Your task to perform on an android device: make emails show in primary in the gmail app Image 0: 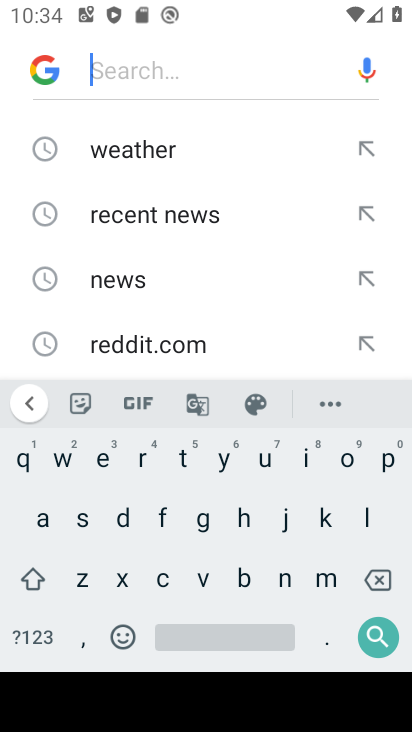
Step 0: press home button
Your task to perform on an android device: make emails show in primary in the gmail app Image 1: 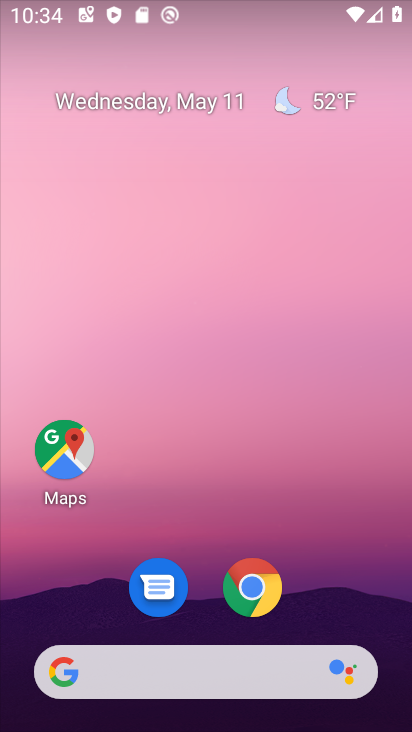
Step 1: drag from (305, 699) to (178, 249)
Your task to perform on an android device: make emails show in primary in the gmail app Image 2: 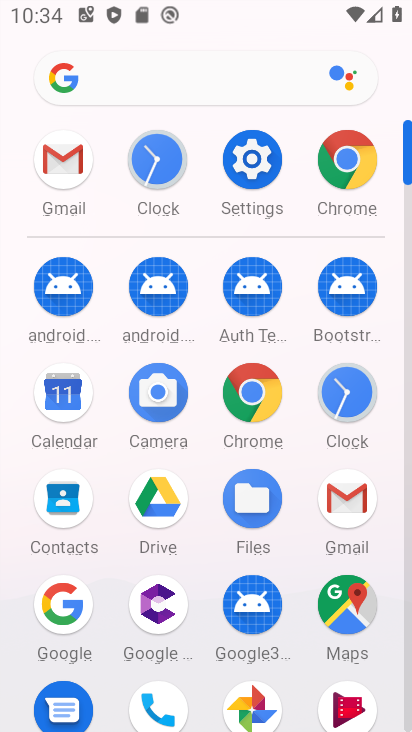
Step 2: click (337, 513)
Your task to perform on an android device: make emails show in primary in the gmail app Image 3: 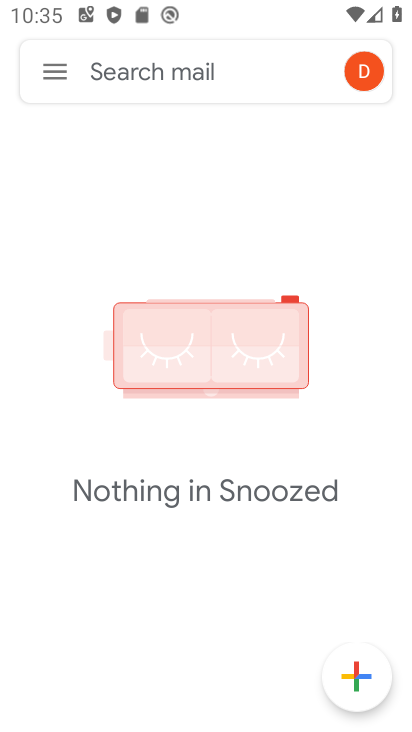
Step 3: click (56, 85)
Your task to perform on an android device: make emails show in primary in the gmail app Image 4: 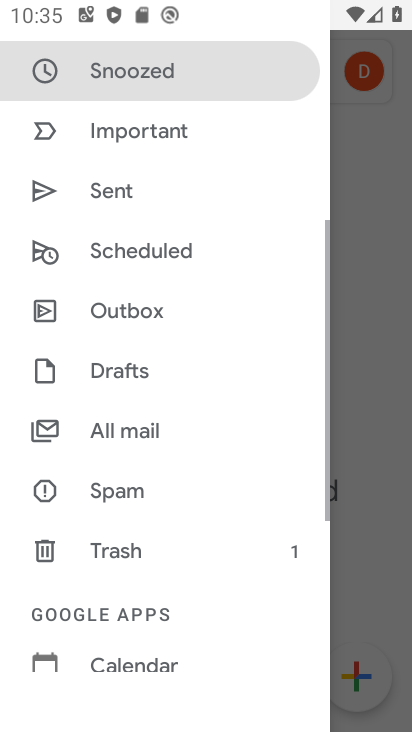
Step 4: drag from (152, 577) to (208, 323)
Your task to perform on an android device: make emails show in primary in the gmail app Image 5: 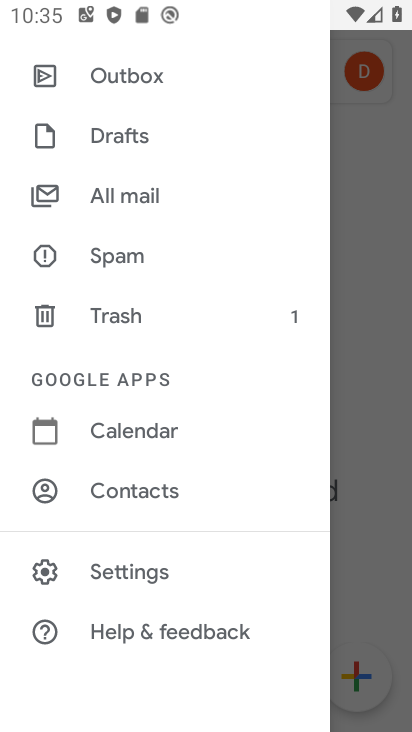
Step 5: click (134, 577)
Your task to perform on an android device: make emails show in primary in the gmail app Image 6: 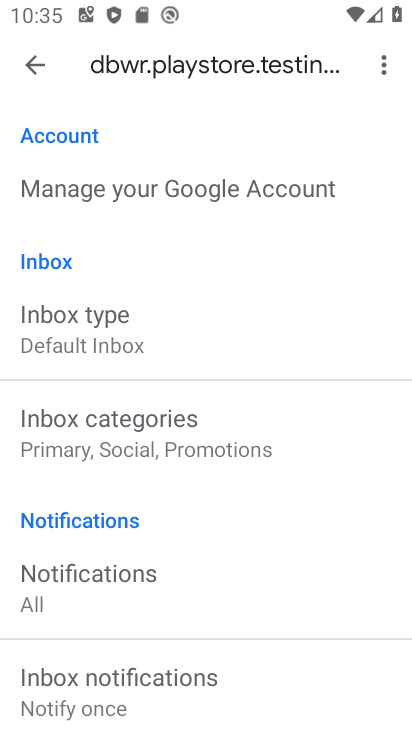
Step 6: click (148, 439)
Your task to perform on an android device: make emails show in primary in the gmail app Image 7: 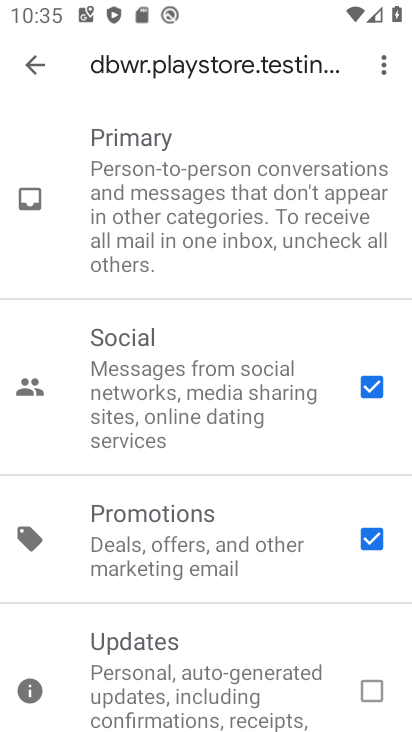
Step 7: click (373, 520)
Your task to perform on an android device: make emails show in primary in the gmail app Image 8: 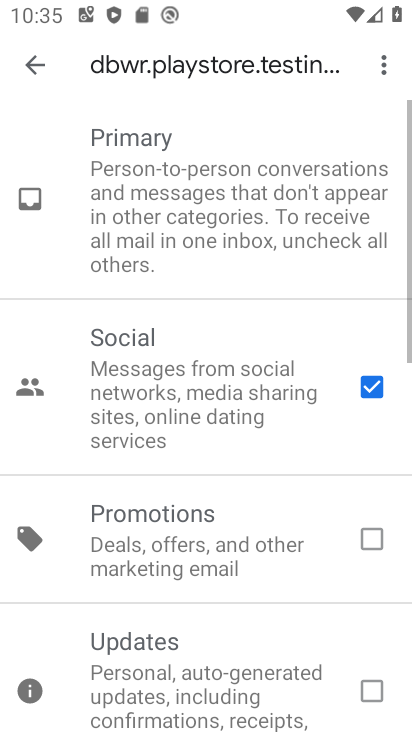
Step 8: click (361, 379)
Your task to perform on an android device: make emails show in primary in the gmail app Image 9: 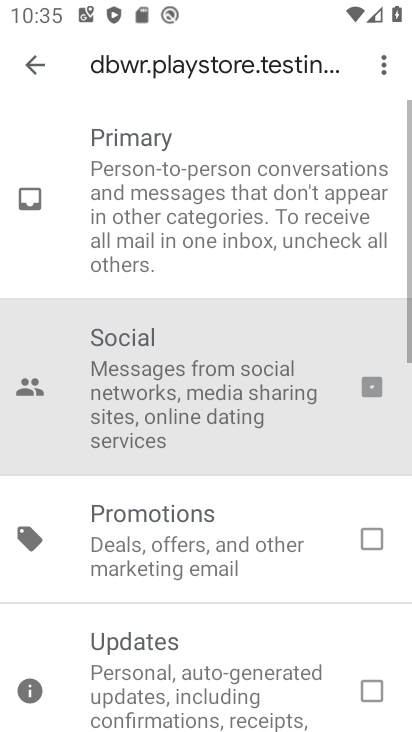
Step 9: click (283, 199)
Your task to perform on an android device: make emails show in primary in the gmail app Image 10: 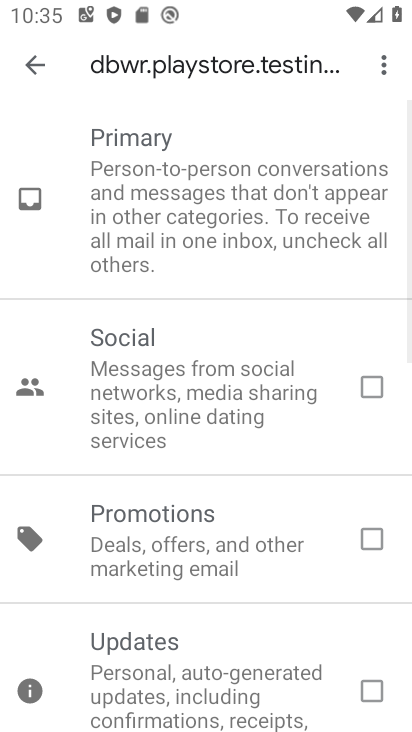
Step 10: task complete